Your task to perform on an android device: Search for 3d printer on AliExpress Image 0: 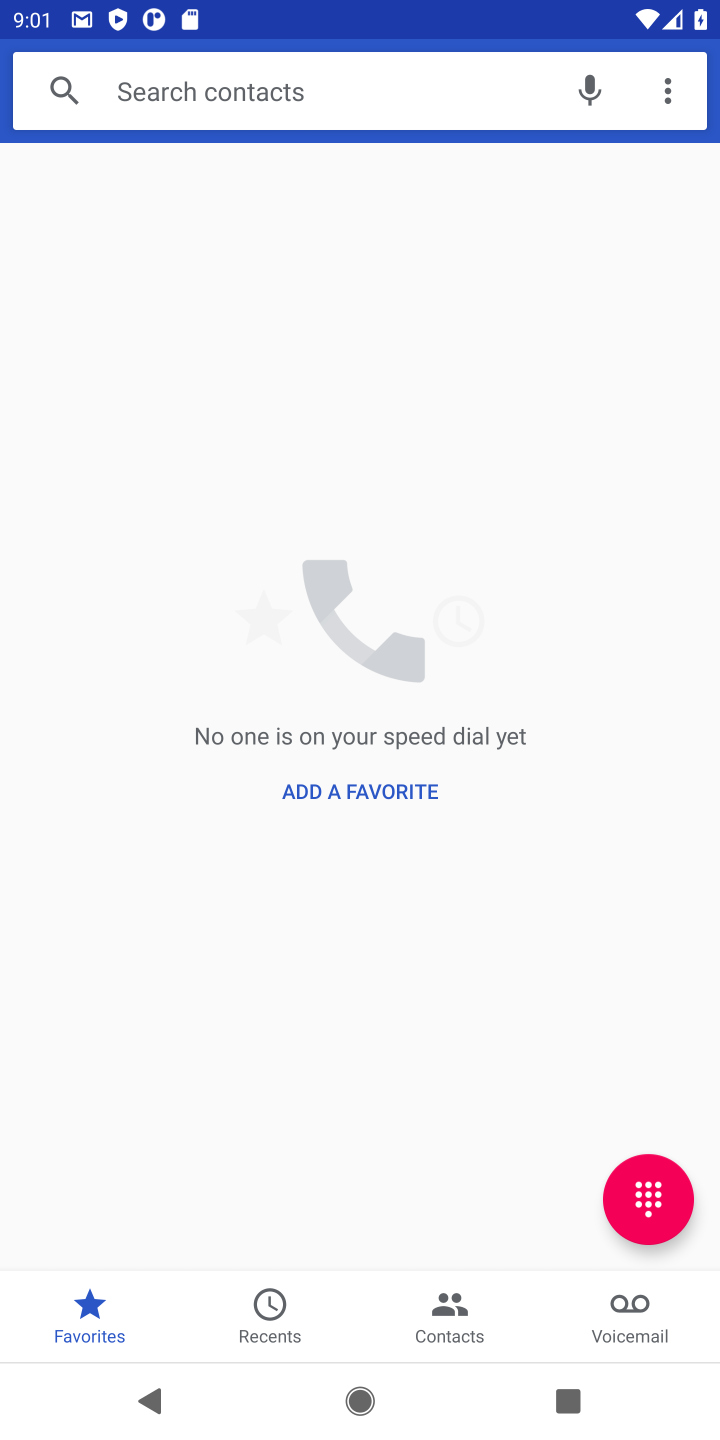
Step 0: press home button
Your task to perform on an android device: Search for 3d printer on AliExpress Image 1: 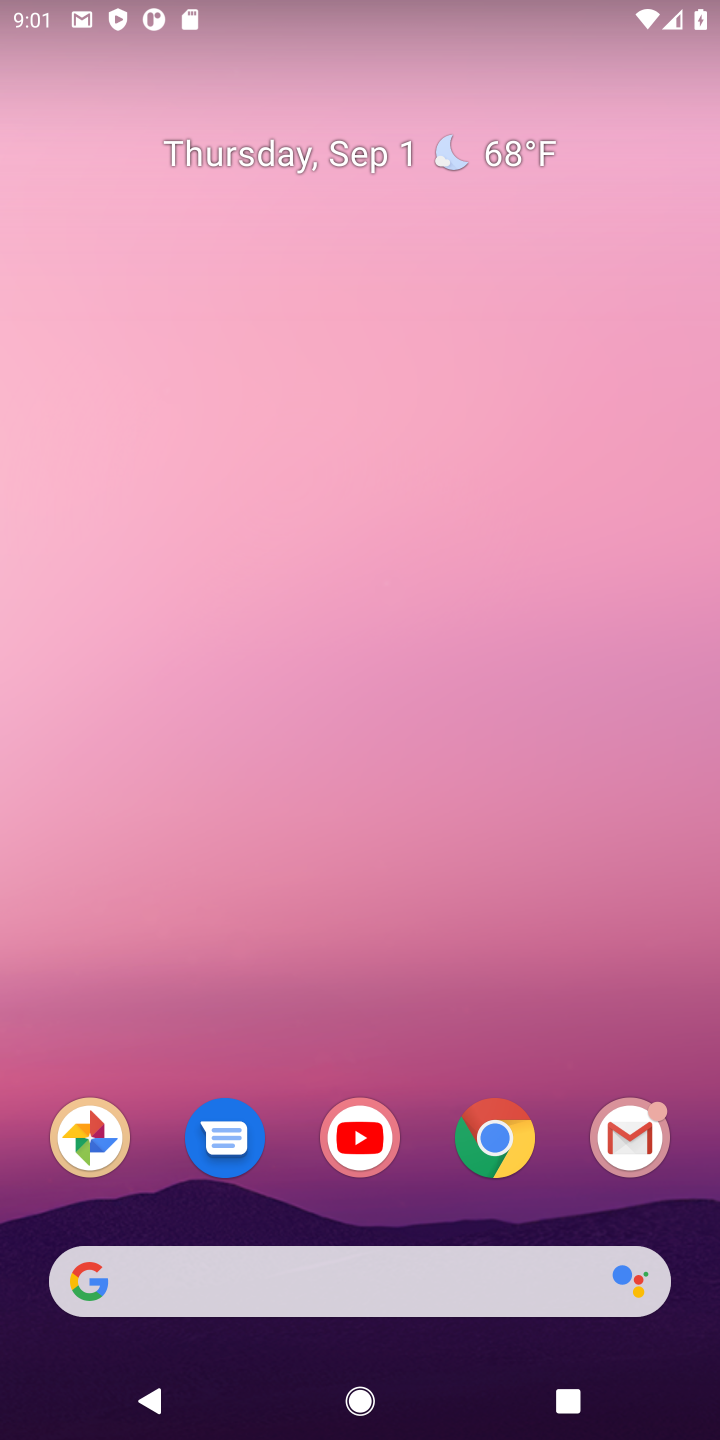
Step 1: click (491, 1146)
Your task to perform on an android device: Search for 3d printer on AliExpress Image 2: 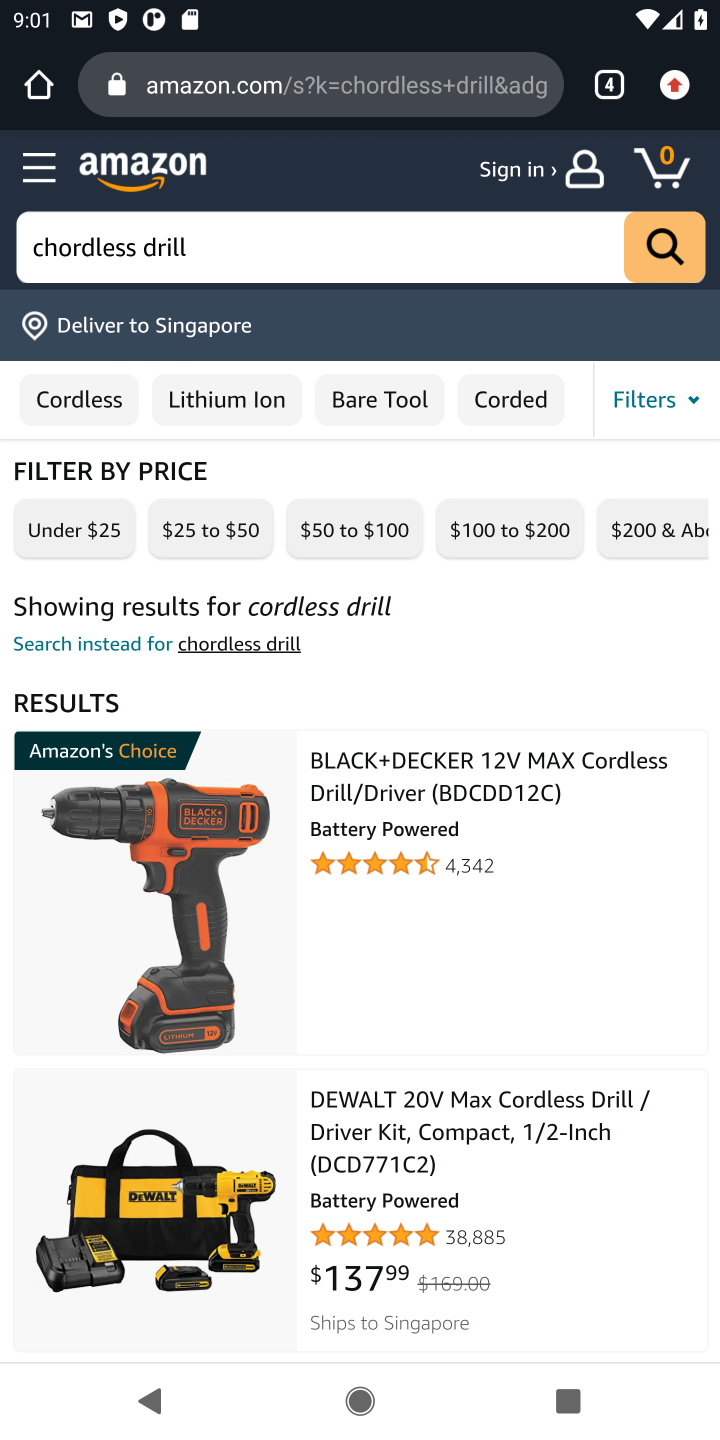
Step 2: click (518, 246)
Your task to perform on an android device: Search for 3d printer on AliExpress Image 3: 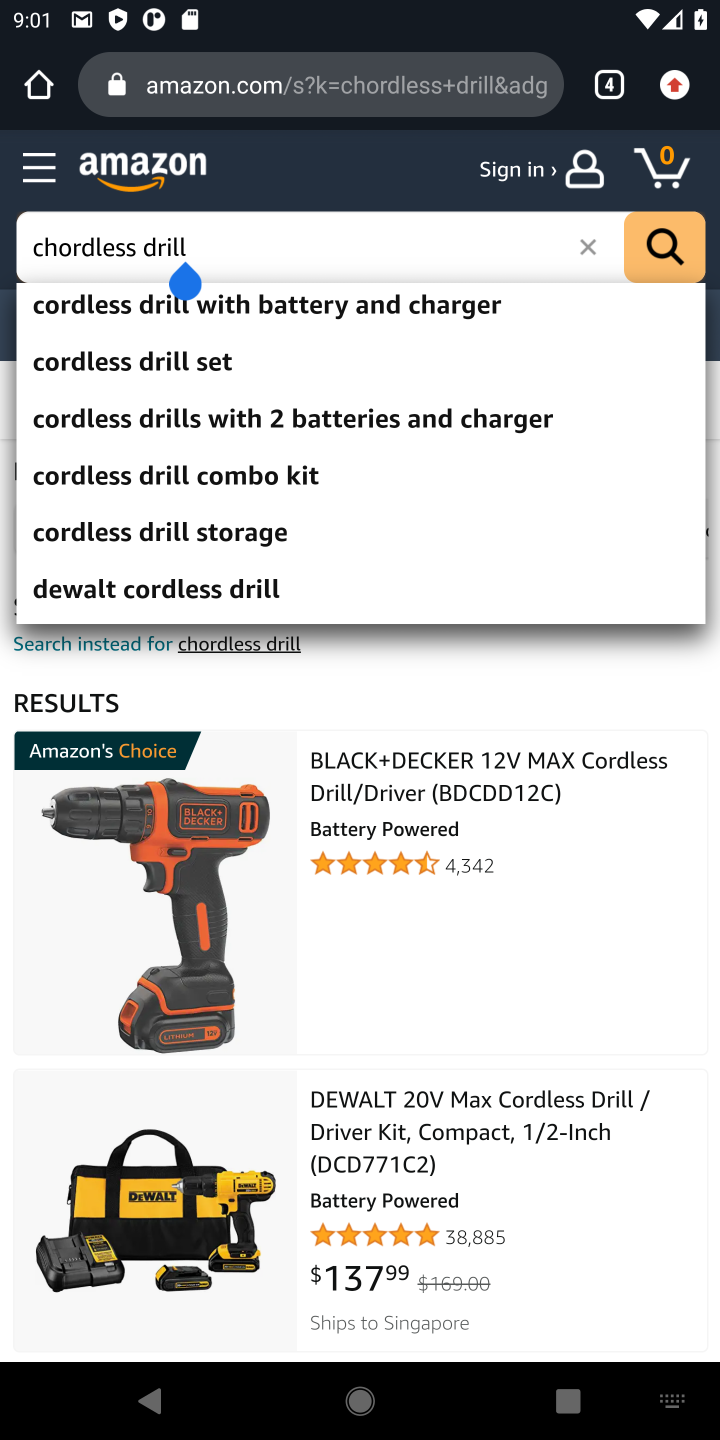
Step 3: click (606, 80)
Your task to perform on an android device: Search for 3d printer on AliExpress Image 4: 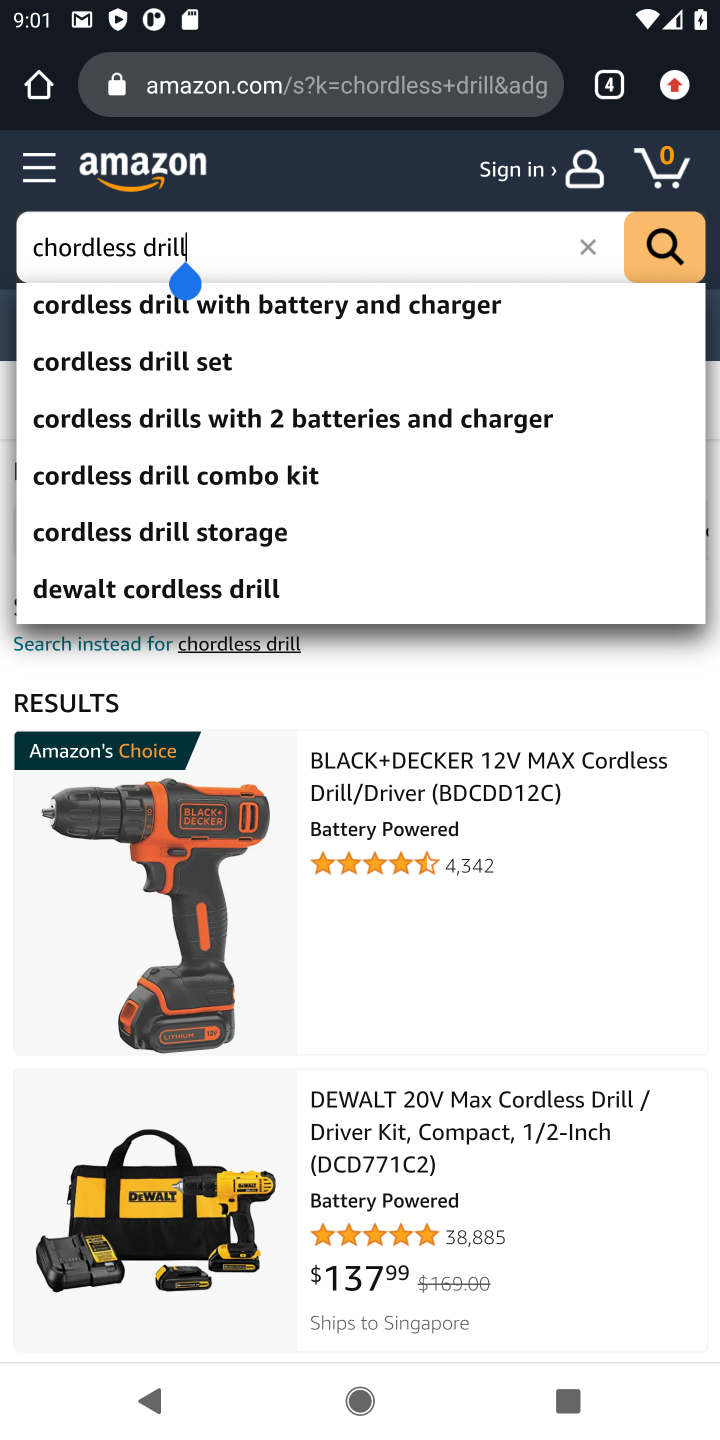
Step 4: click (606, 80)
Your task to perform on an android device: Search for 3d printer on AliExpress Image 5: 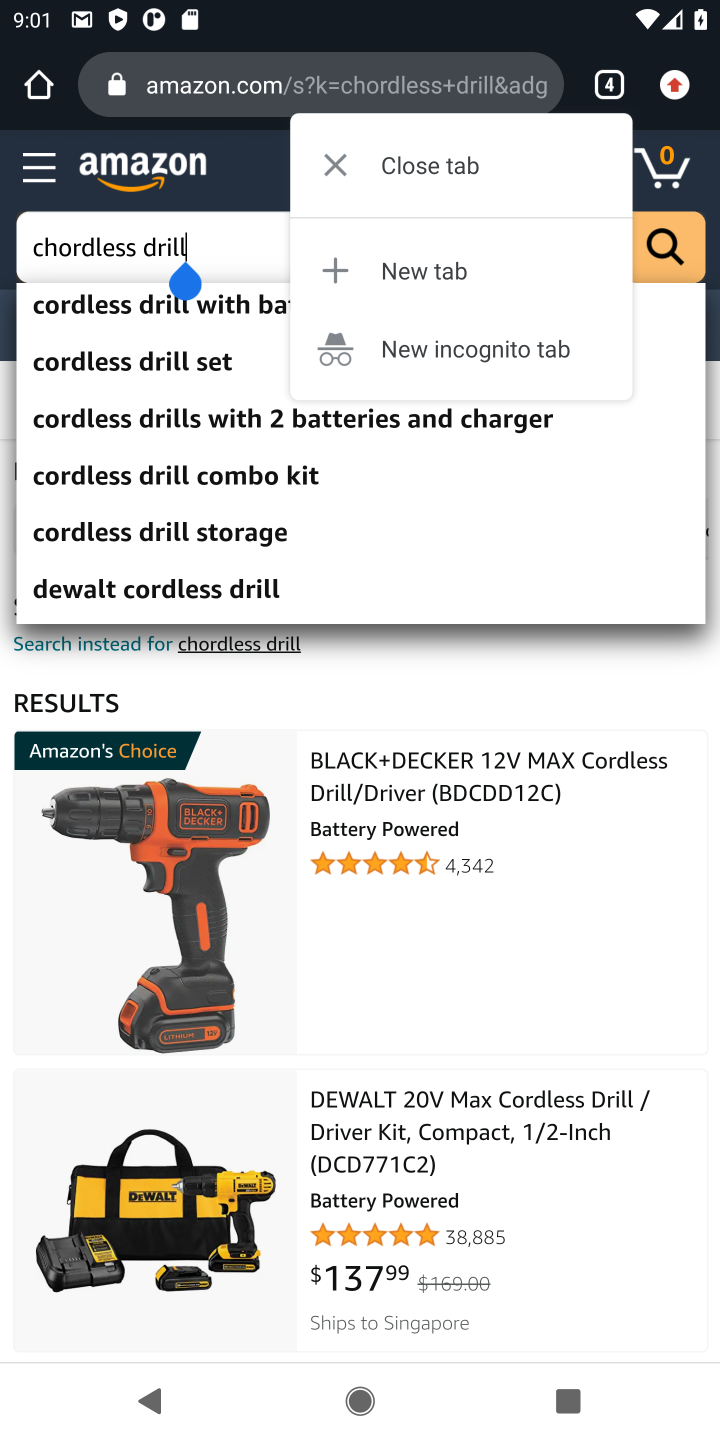
Step 5: click (486, 289)
Your task to perform on an android device: Search for 3d printer on AliExpress Image 6: 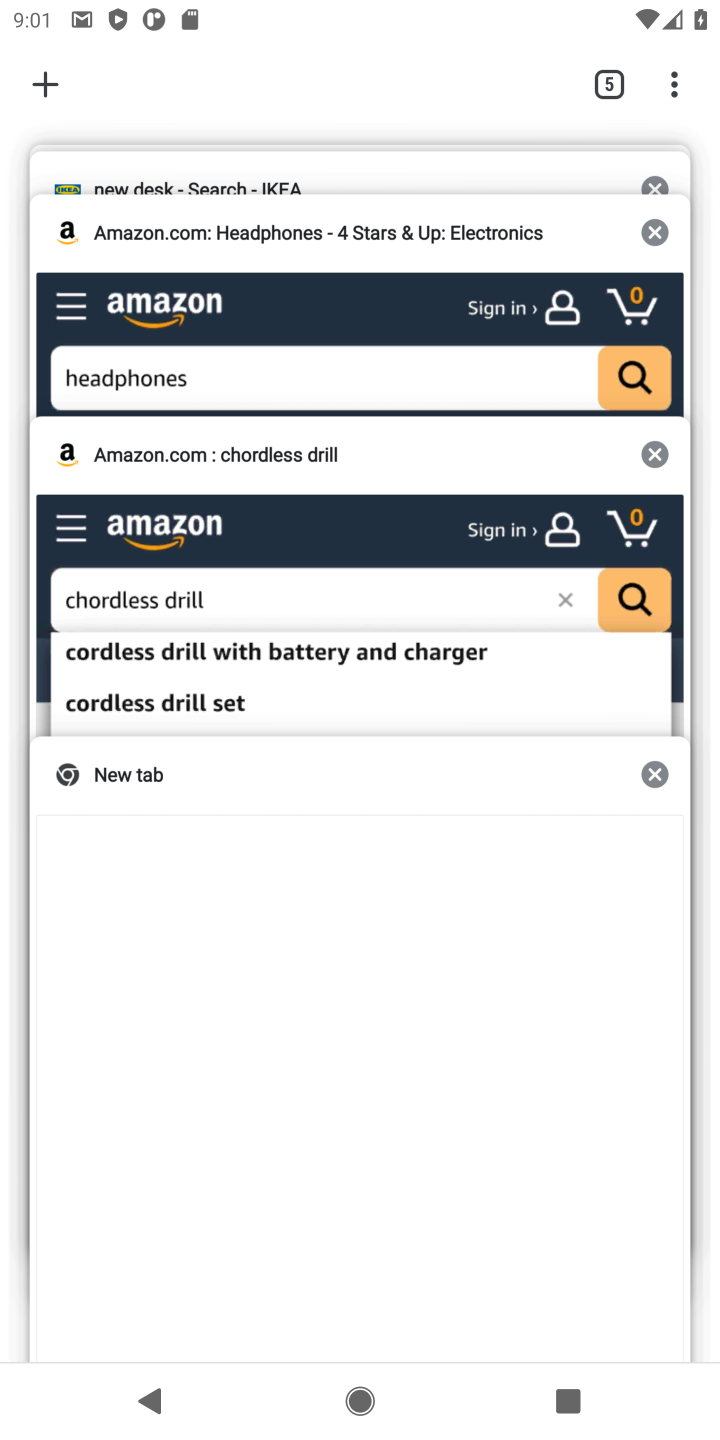
Step 6: click (241, 857)
Your task to perform on an android device: Search for 3d printer on AliExpress Image 7: 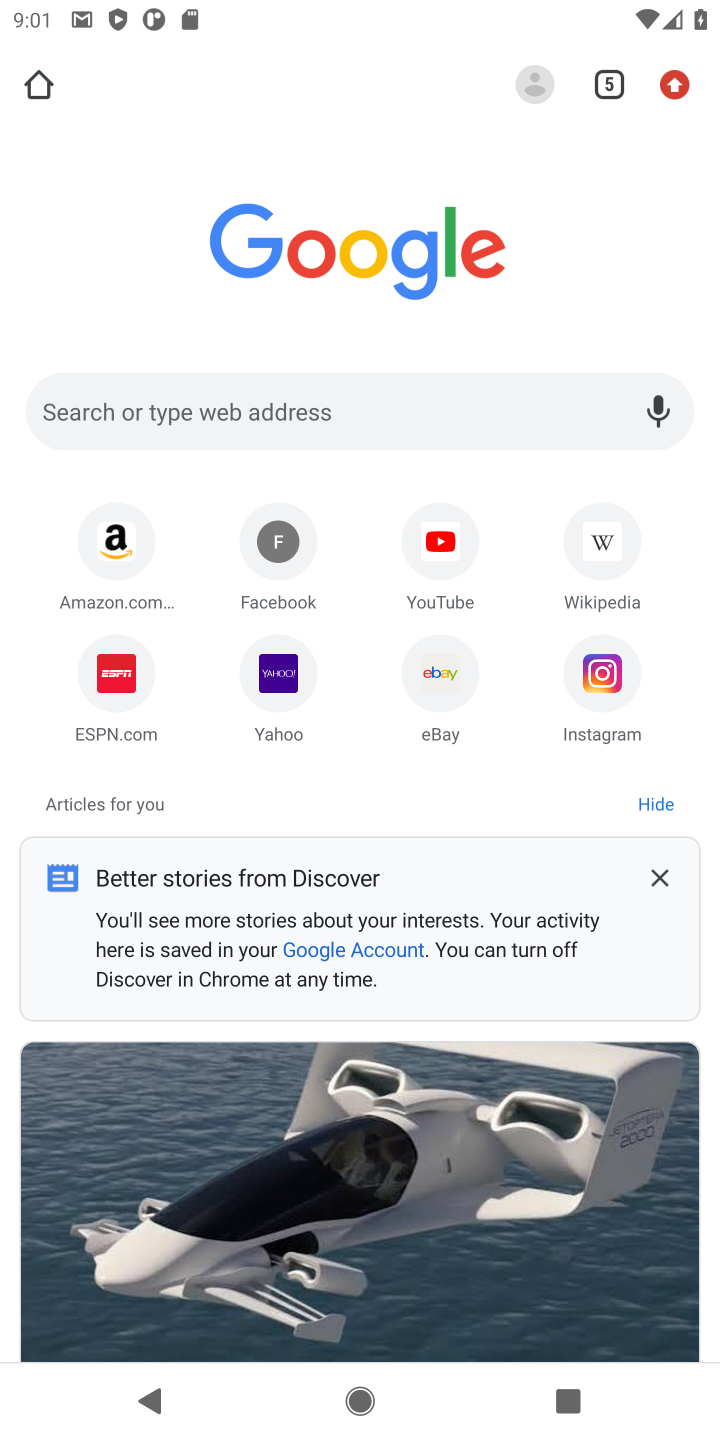
Step 7: click (220, 405)
Your task to perform on an android device: Search for 3d printer on AliExpress Image 8: 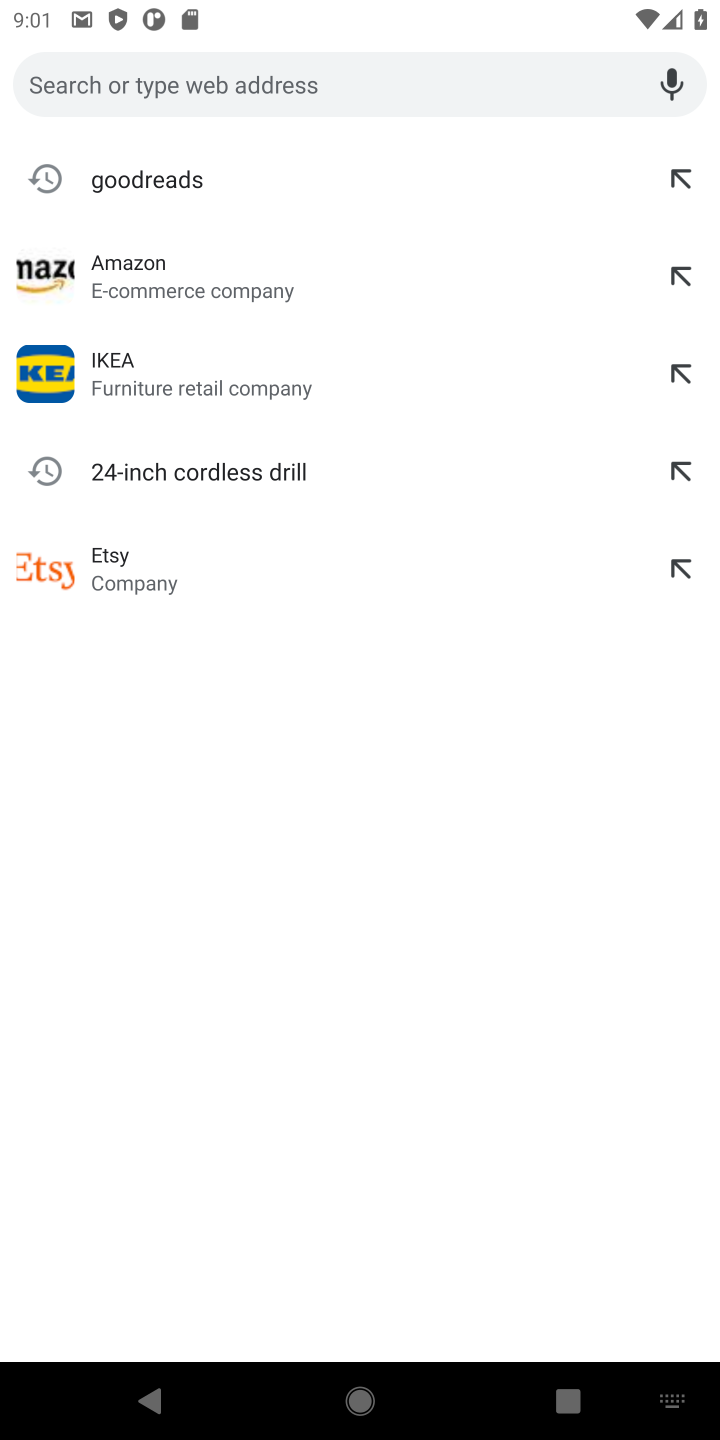
Step 8: type "ali express"
Your task to perform on an android device: Search for 3d printer on AliExpress Image 9: 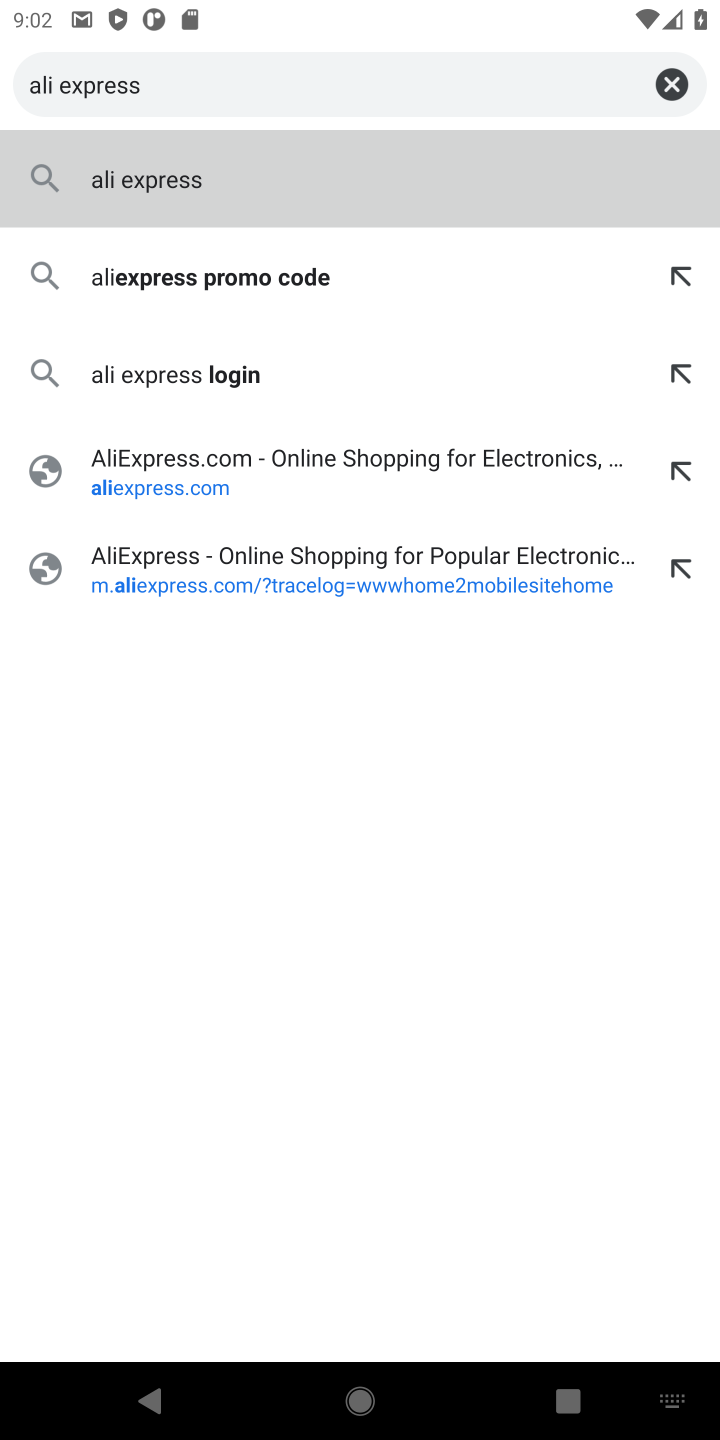
Step 9: click (135, 466)
Your task to perform on an android device: Search for 3d printer on AliExpress Image 10: 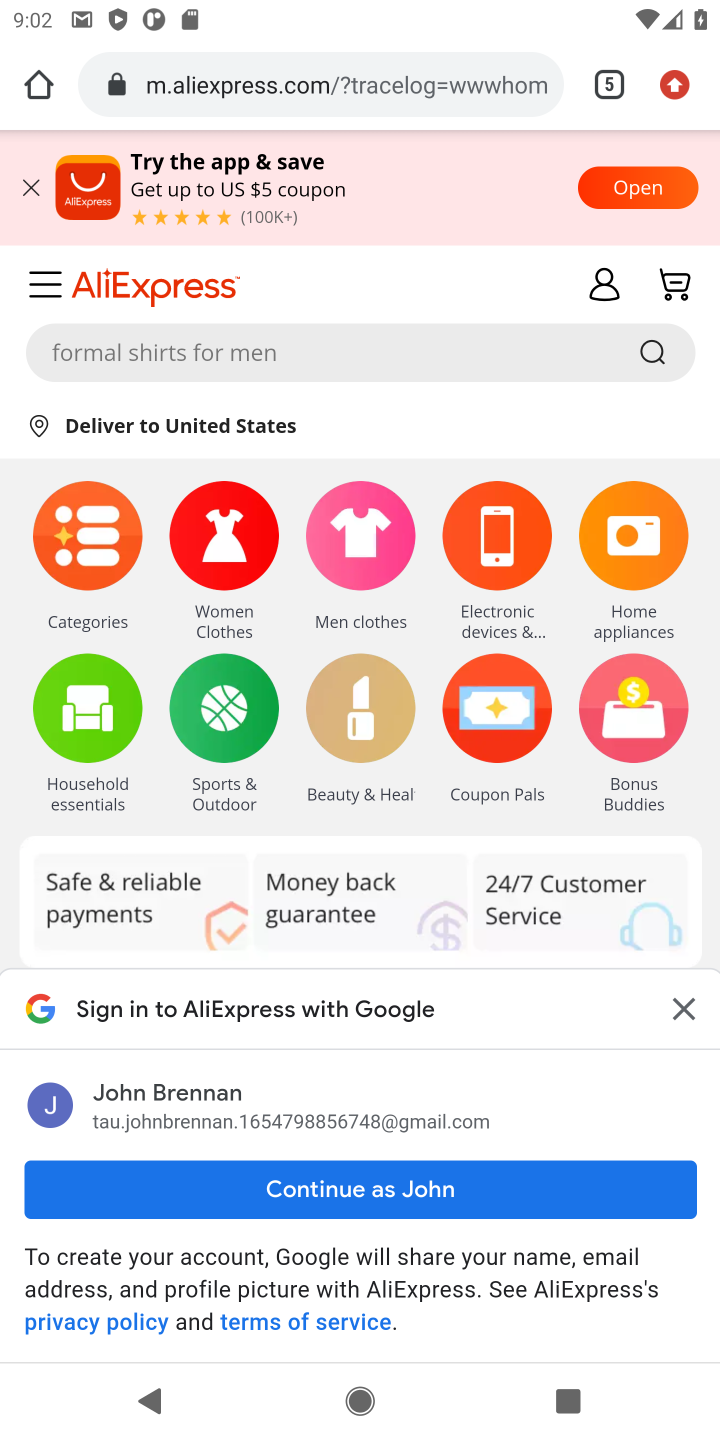
Step 10: click (307, 348)
Your task to perform on an android device: Search for 3d printer on AliExpress Image 11: 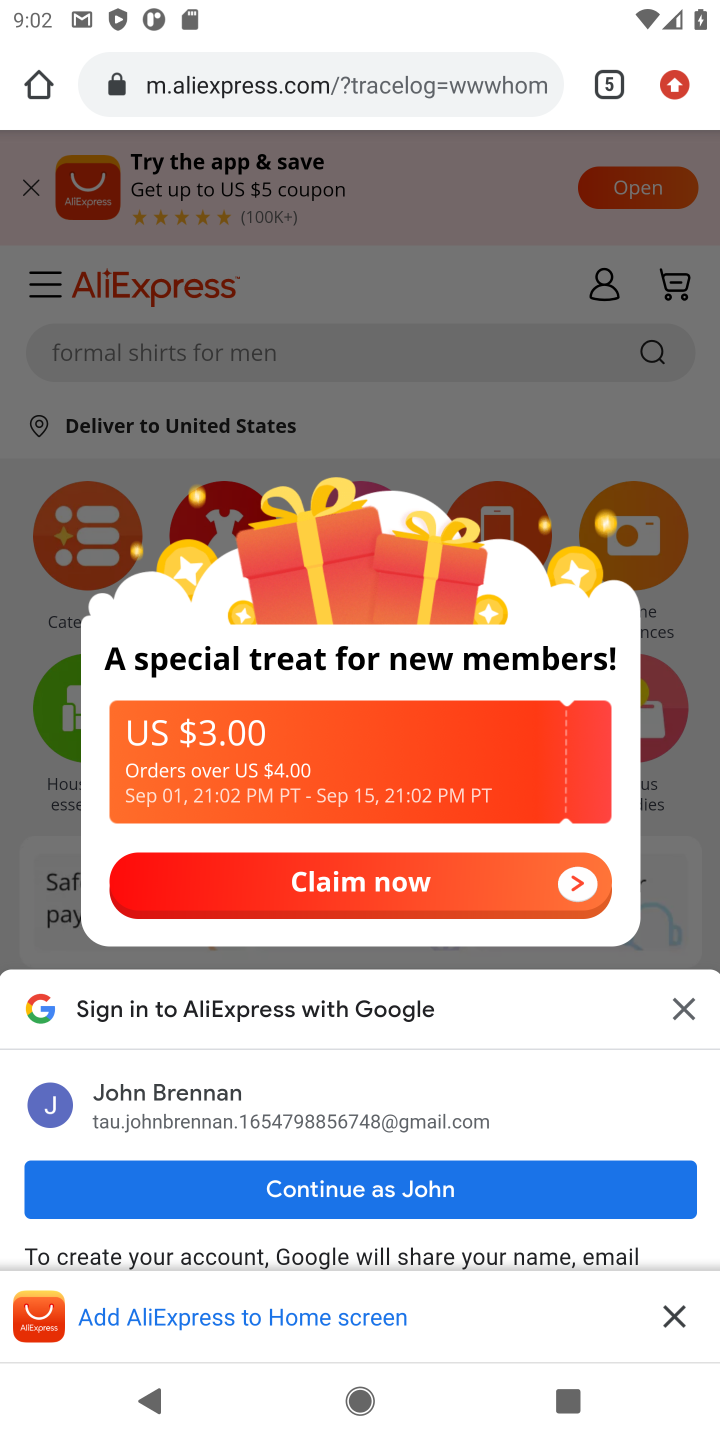
Step 11: click (530, 482)
Your task to perform on an android device: Search for 3d printer on AliExpress Image 12: 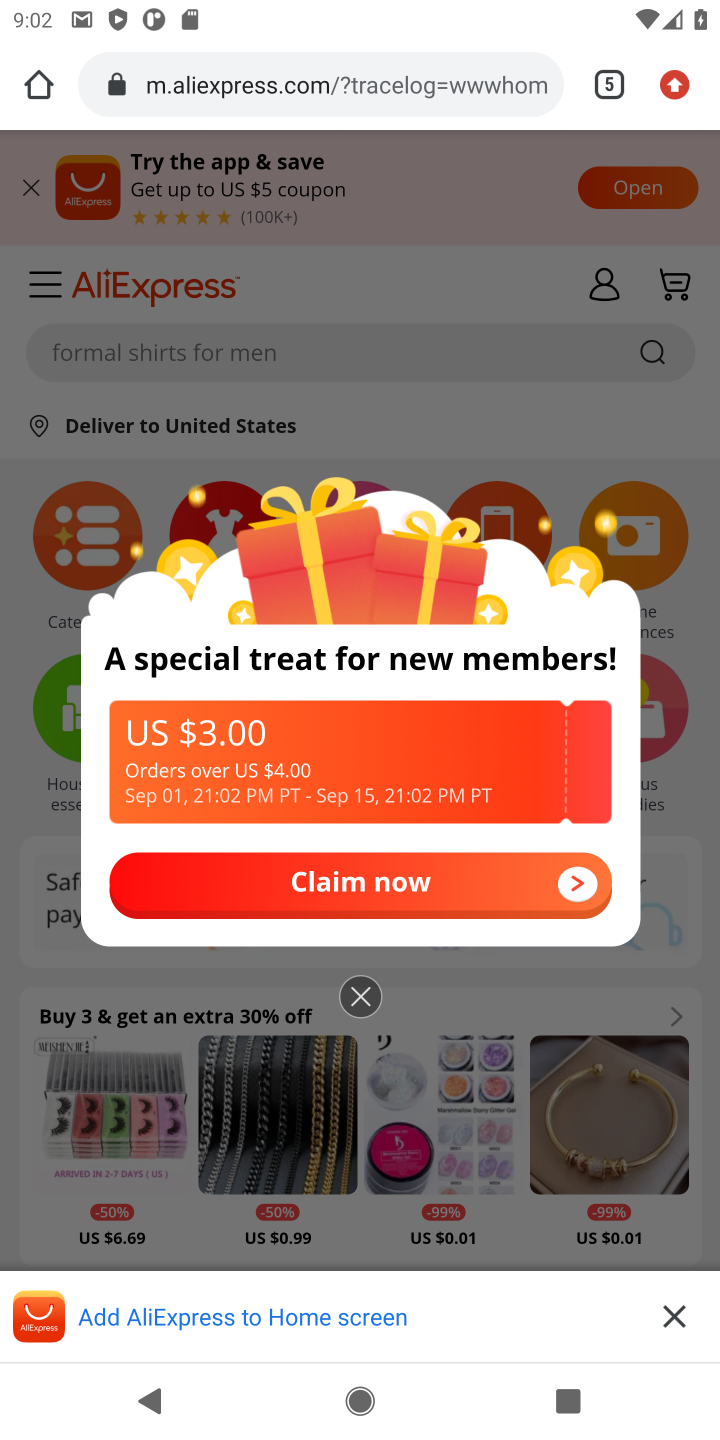
Step 12: click (453, 325)
Your task to perform on an android device: Search for 3d printer on AliExpress Image 13: 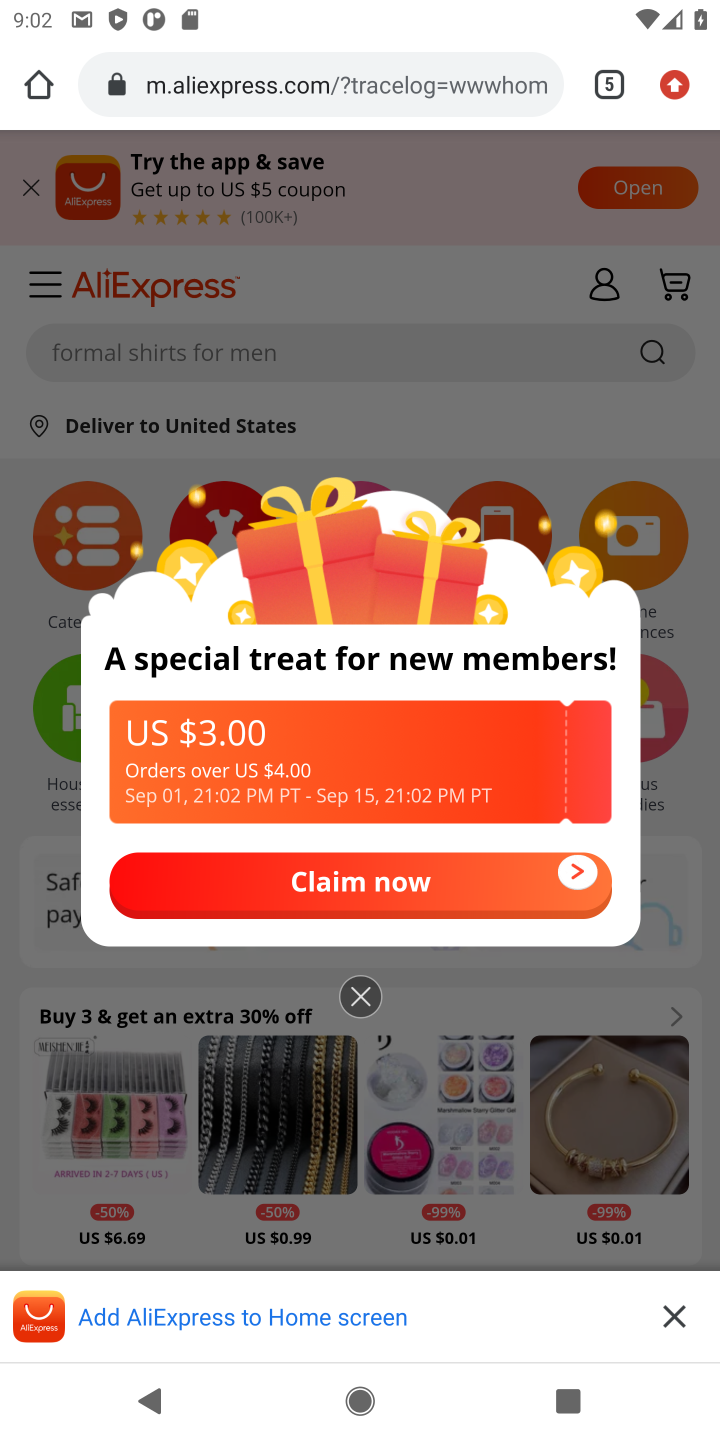
Step 13: click (369, 999)
Your task to perform on an android device: Search for 3d printer on AliExpress Image 14: 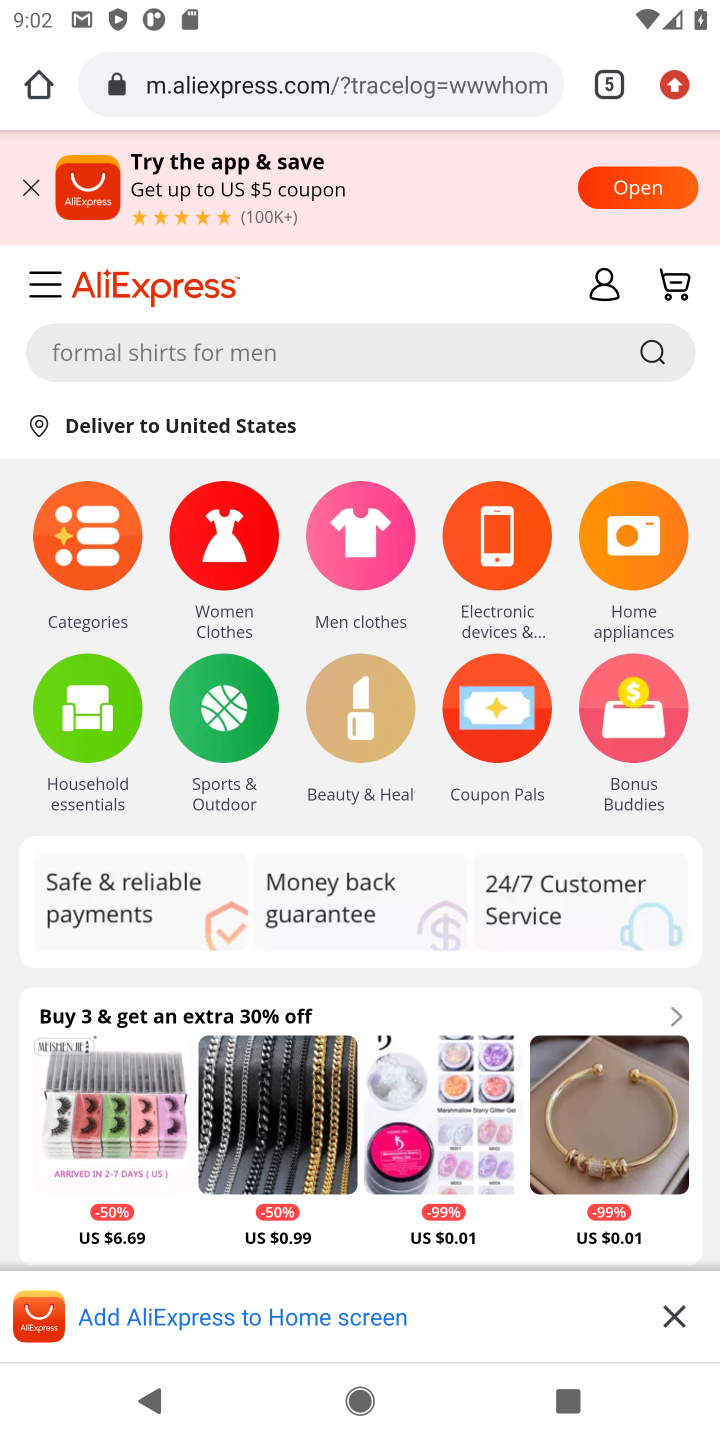
Step 14: click (290, 349)
Your task to perform on an android device: Search for 3d printer on AliExpress Image 15: 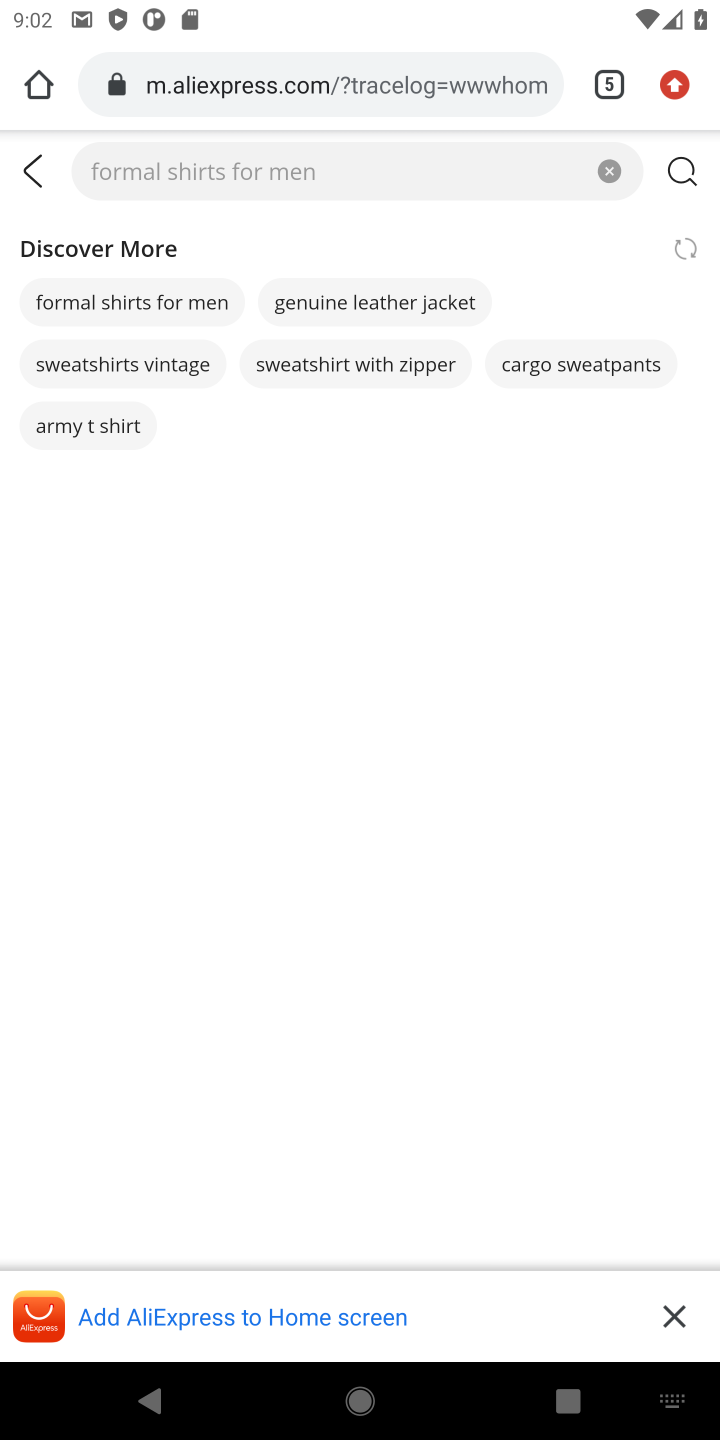
Step 15: type "3d printer"
Your task to perform on an android device: Search for 3d printer on AliExpress Image 16: 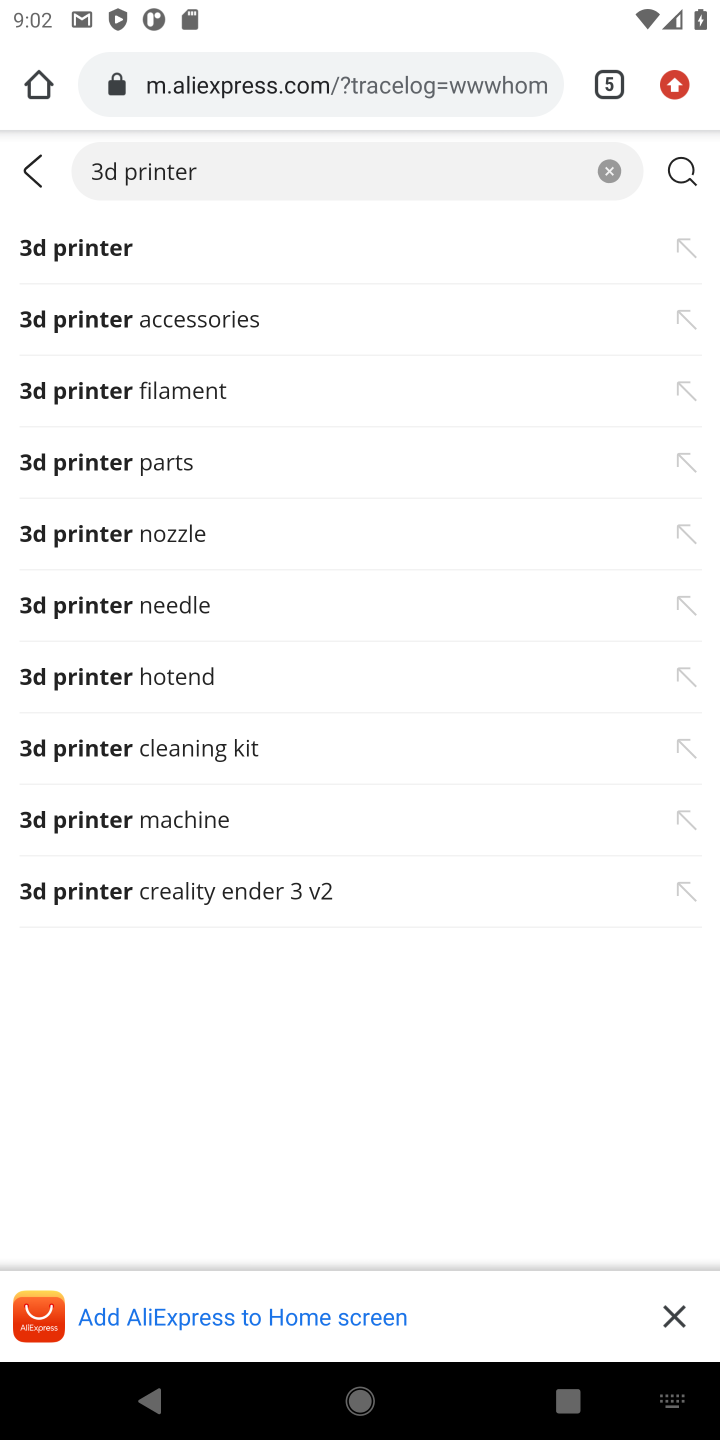
Step 16: click (82, 241)
Your task to perform on an android device: Search for 3d printer on AliExpress Image 17: 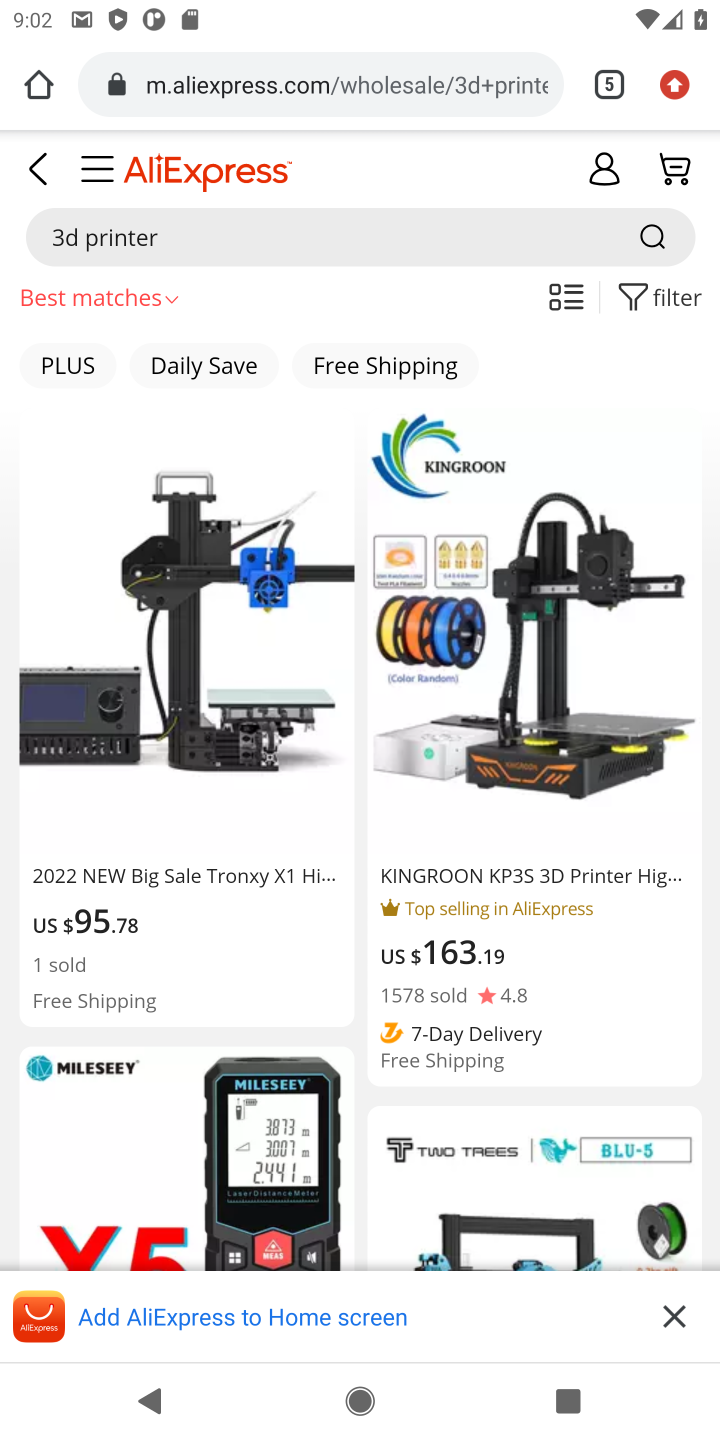
Step 17: task complete